Your task to perform on an android device: Go to accessibility settings Image 0: 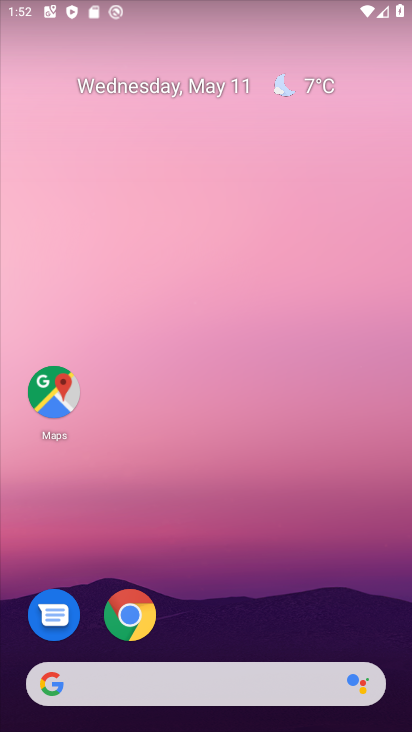
Step 0: drag from (289, 518) to (283, 178)
Your task to perform on an android device: Go to accessibility settings Image 1: 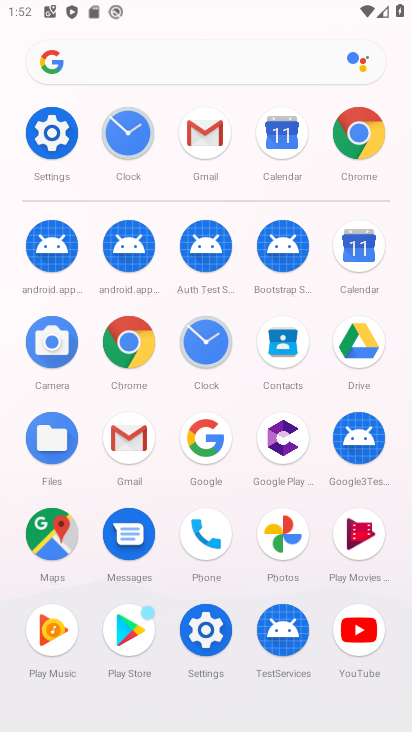
Step 1: click (49, 126)
Your task to perform on an android device: Go to accessibility settings Image 2: 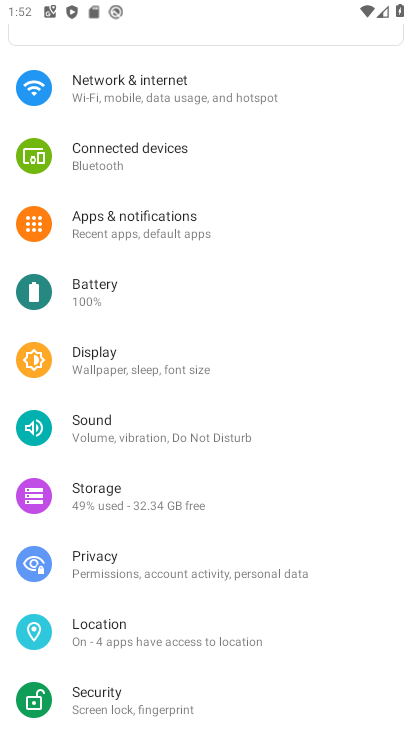
Step 2: drag from (141, 627) to (399, 57)
Your task to perform on an android device: Go to accessibility settings Image 3: 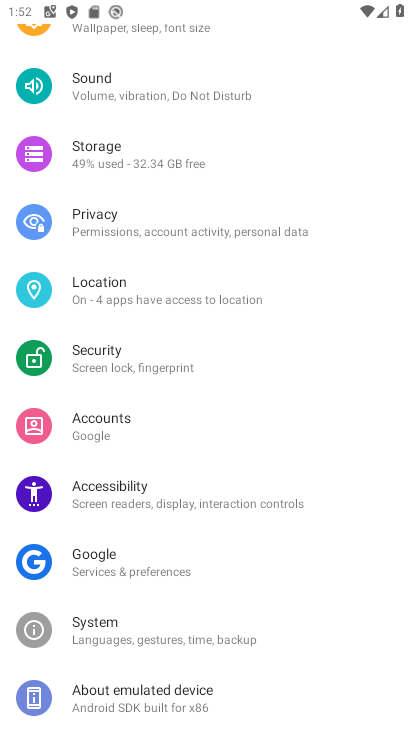
Step 3: click (122, 480)
Your task to perform on an android device: Go to accessibility settings Image 4: 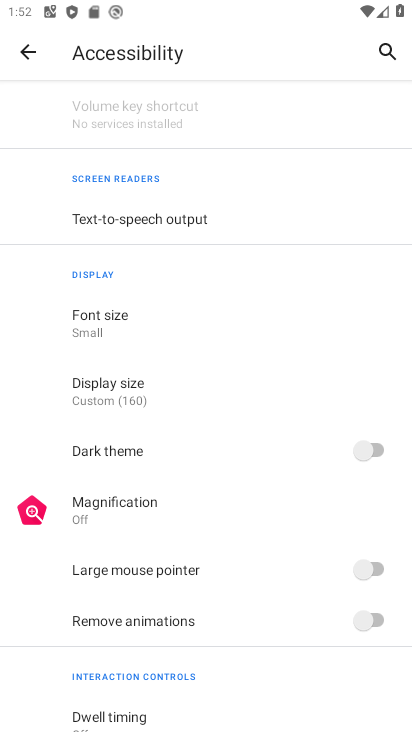
Step 4: task complete